Your task to perform on an android device: Open the web browser Image 0: 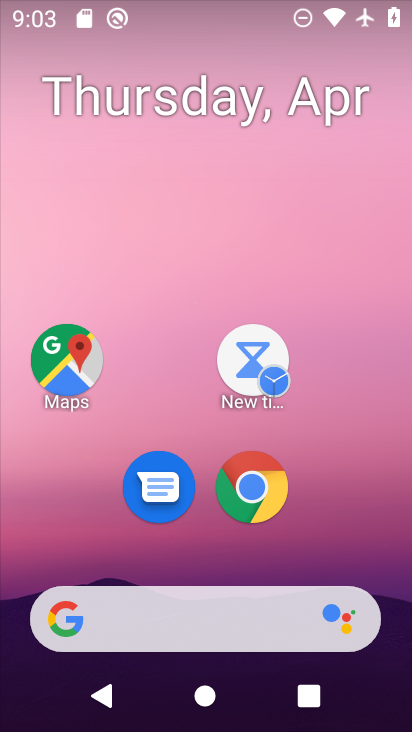
Step 0: click (254, 478)
Your task to perform on an android device: Open the web browser Image 1: 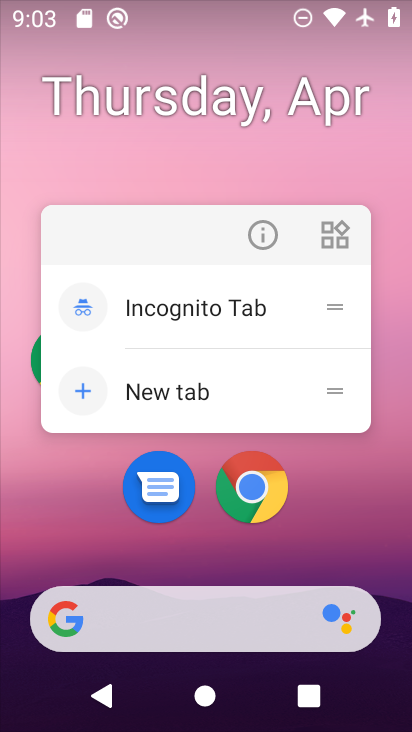
Step 1: click (325, 501)
Your task to perform on an android device: Open the web browser Image 2: 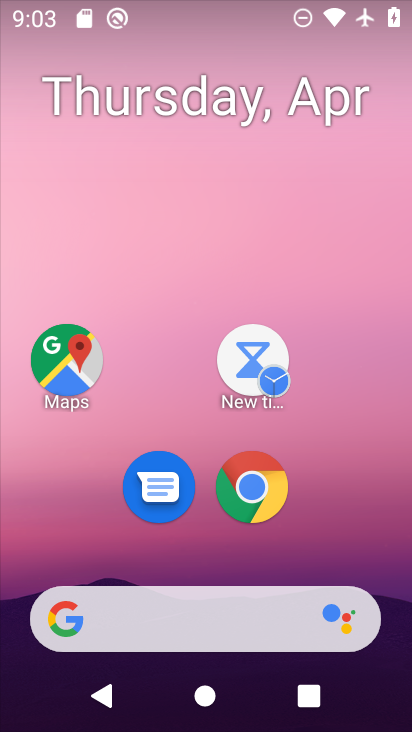
Step 2: click (258, 482)
Your task to perform on an android device: Open the web browser Image 3: 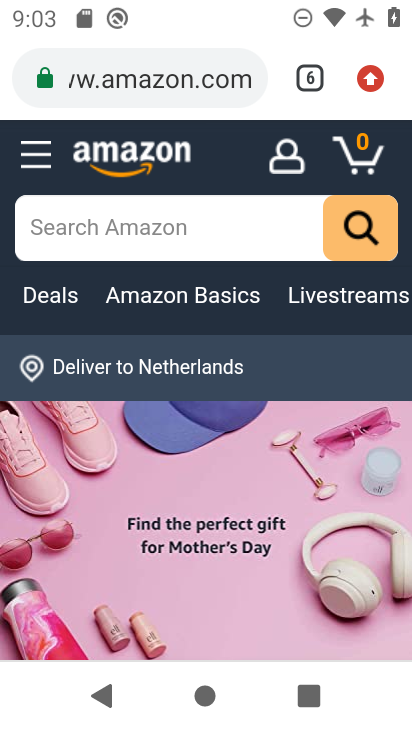
Step 3: task complete